Your task to perform on an android device: see sites visited before in the chrome app Image 0: 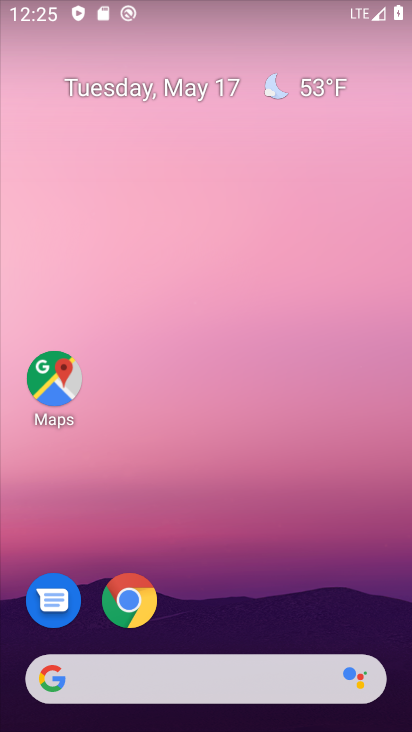
Step 0: drag from (176, 385) to (215, 38)
Your task to perform on an android device: see sites visited before in the chrome app Image 1: 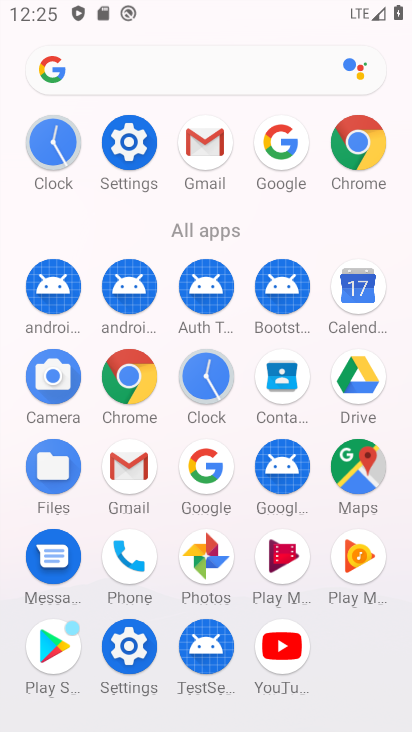
Step 1: click (355, 177)
Your task to perform on an android device: see sites visited before in the chrome app Image 2: 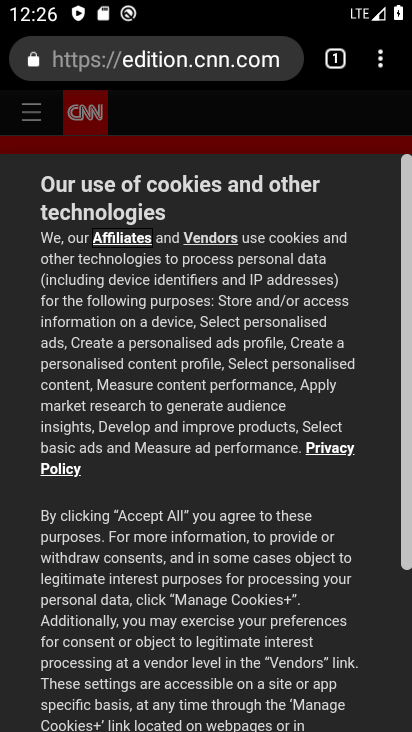
Step 2: click (380, 61)
Your task to perform on an android device: see sites visited before in the chrome app Image 3: 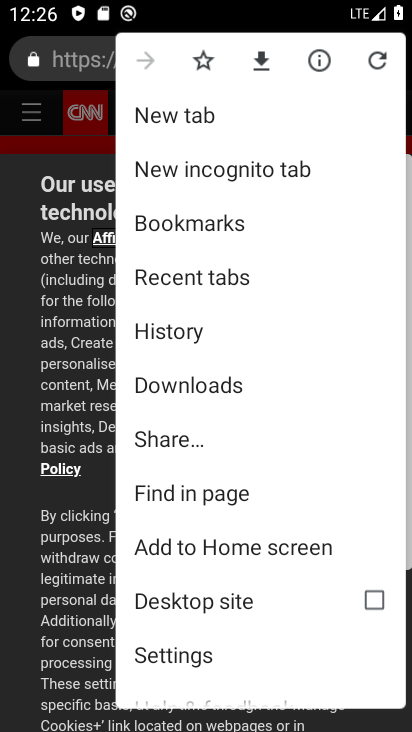
Step 3: click (176, 341)
Your task to perform on an android device: see sites visited before in the chrome app Image 4: 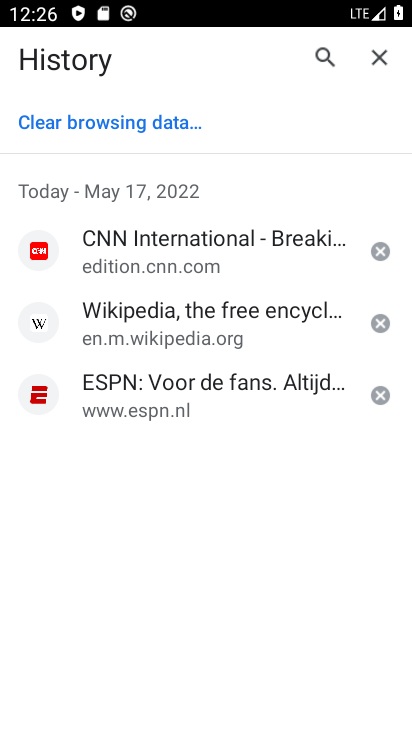
Step 4: task complete